Your task to perform on an android device: turn off notifications settings in the gmail app Image 0: 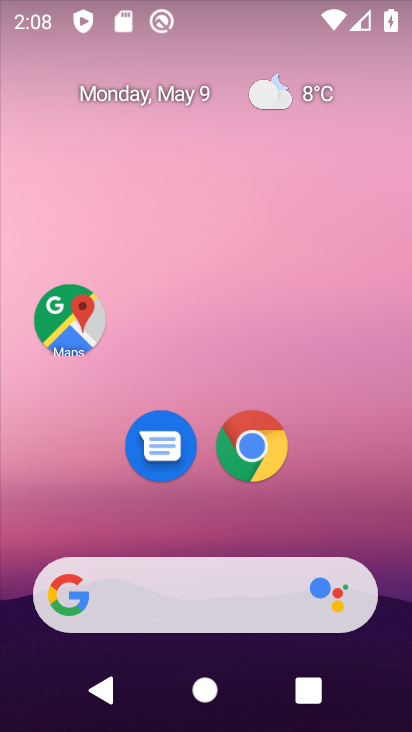
Step 0: drag from (356, 520) to (154, 80)
Your task to perform on an android device: turn off notifications settings in the gmail app Image 1: 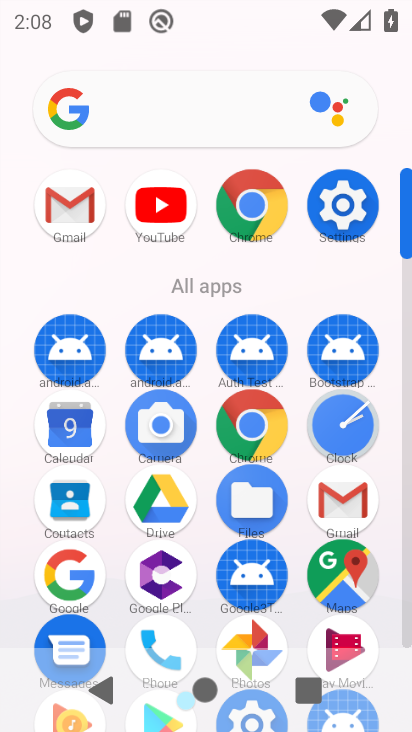
Step 1: click (83, 205)
Your task to perform on an android device: turn off notifications settings in the gmail app Image 2: 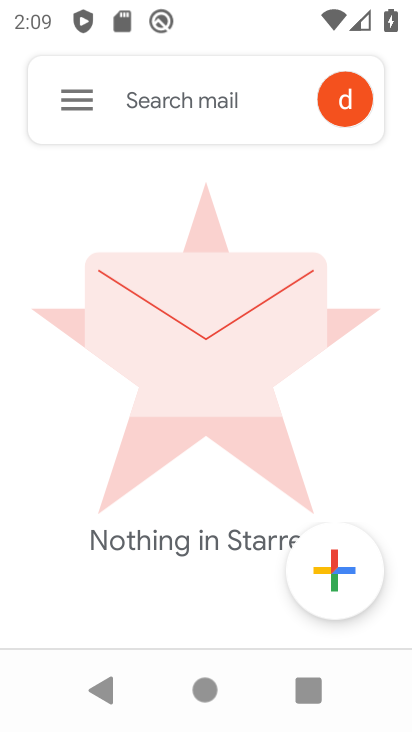
Step 2: click (72, 104)
Your task to perform on an android device: turn off notifications settings in the gmail app Image 3: 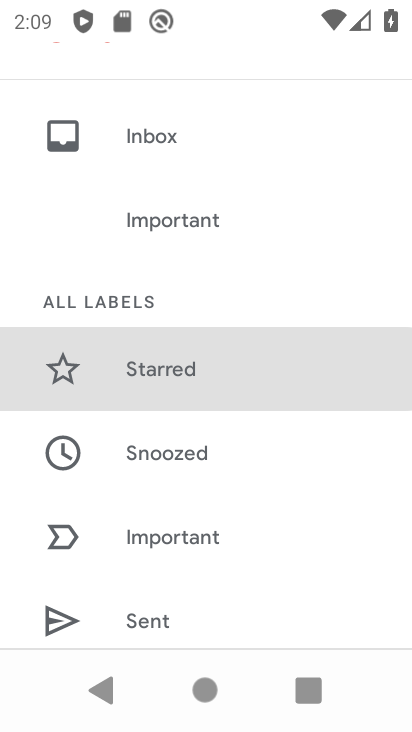
Step 3: drag from (121, 591) to (158, 202)
Your task to perform on an android device: turn off notifications settings in the gmail app Image 4: 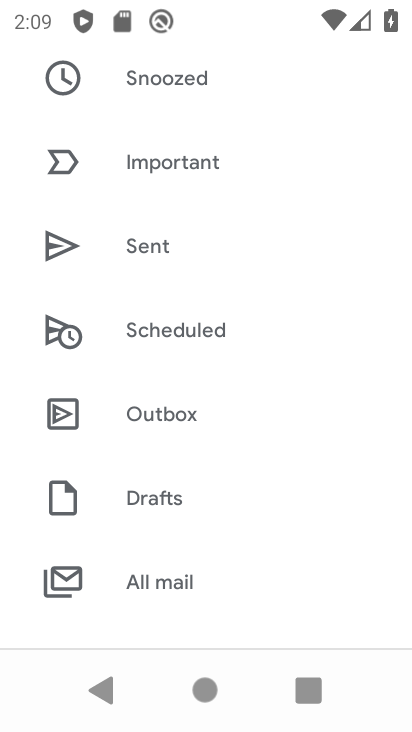
Step 4: drag from (208, 558) to (222, 161)
Your task to perform on an android device: turn off notifications settings in the gmail app Image 5: 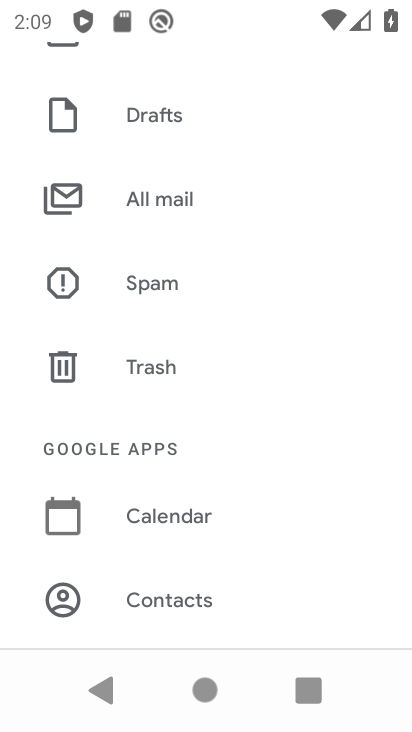
Step 5: drag from (176, 613) to (196, 321)
Your task to perform on an android device: turn off notifications settings in the gmail app Image 6: 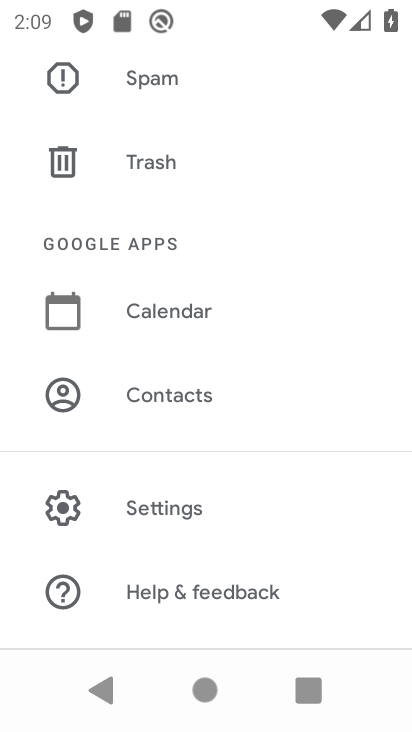
Step 6: click (165, 508)
Your task to perform on an android device: turn off notifications settings in the gmail app Image 7: 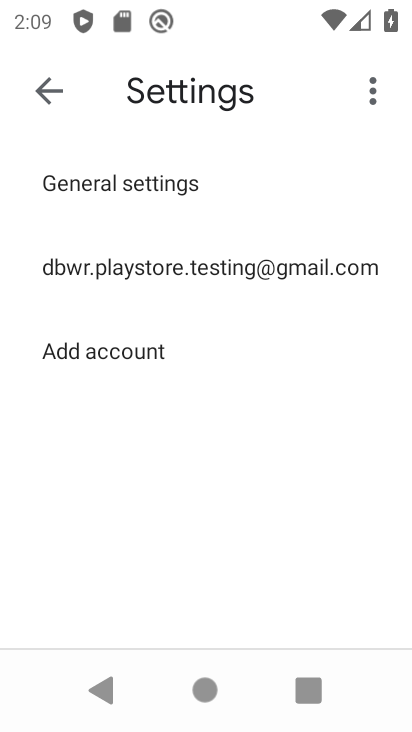
Step 7: click (146, 268)
Your task to perform on an android device: turn off notifications settings in the gmail app Image 8: 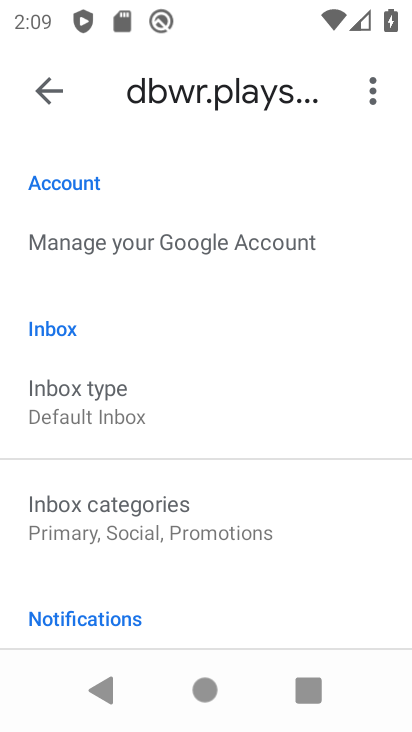
Step 8: drag from (163, 589) to (147, 277)
Your task to perform on an android device: turn off notifications settings in the gmail app Image 9: 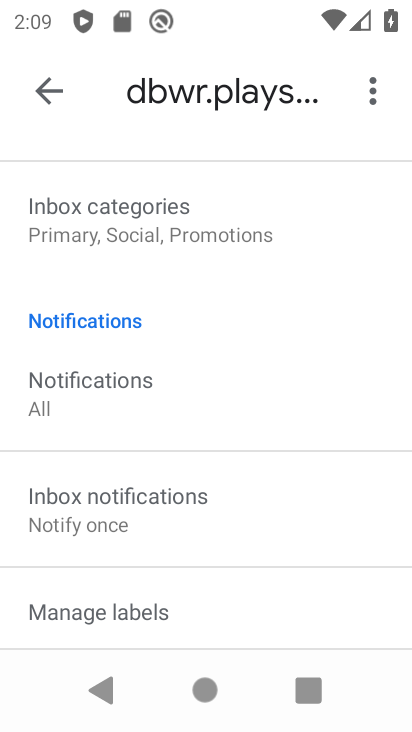
Step 9: drag from (135, 534) to (154, 367)
Your task to perform on an android device: turn off notifications settings in the gmail app Image 10: 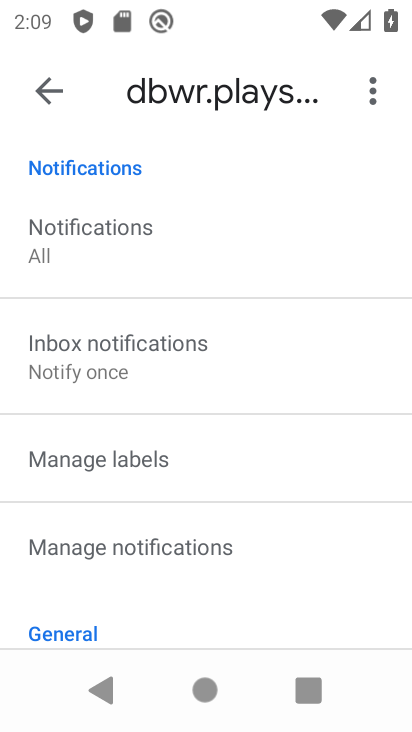
Step 10: click (72, 243)
Your task to perform on an android device: turn off notifications settings in the gmail app Image 11: 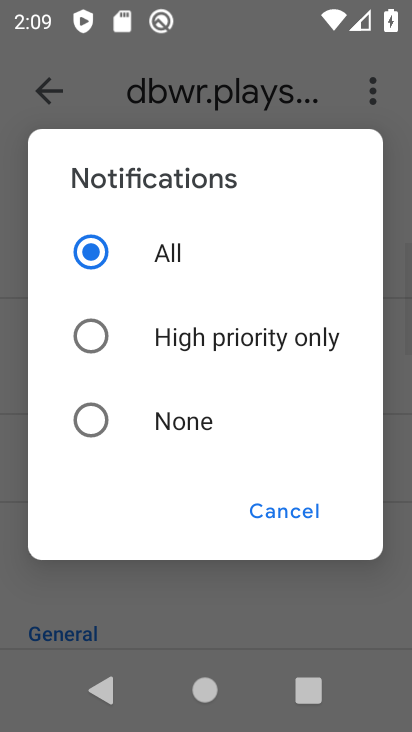
Step 11: click (101, 428)
Your task to perform on an android device: turn off notifications settings in the gmail app Image 12: 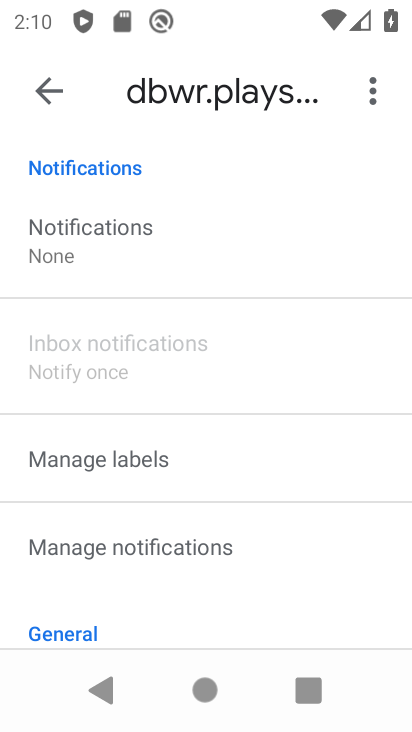
Step 12: task complete